Your task to perform on an android device: Open the Play Movies app and select the watchlist tab. Image 0: 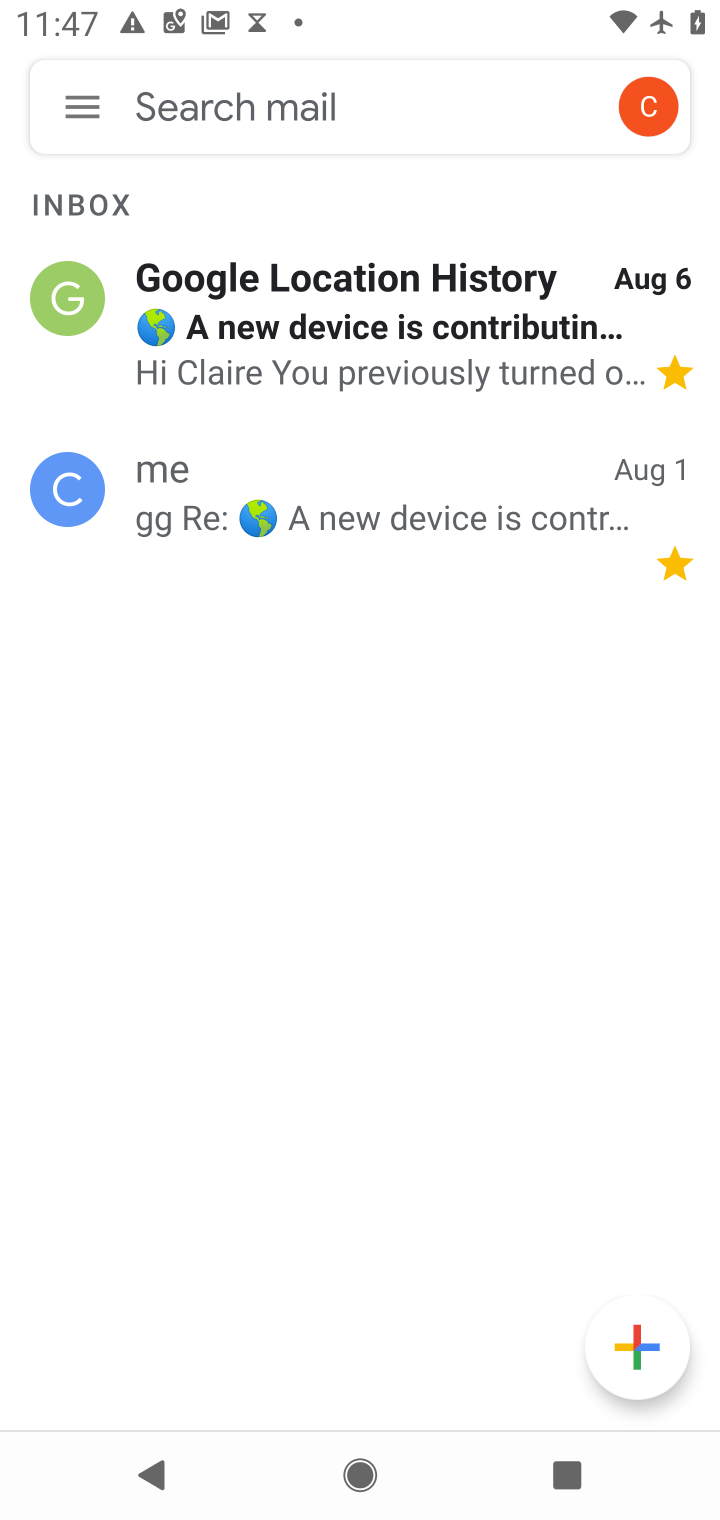
Step 0: press home button
Your task to perform on an android device: Open the Play Movies app and select the watchlist tab. Image 1: 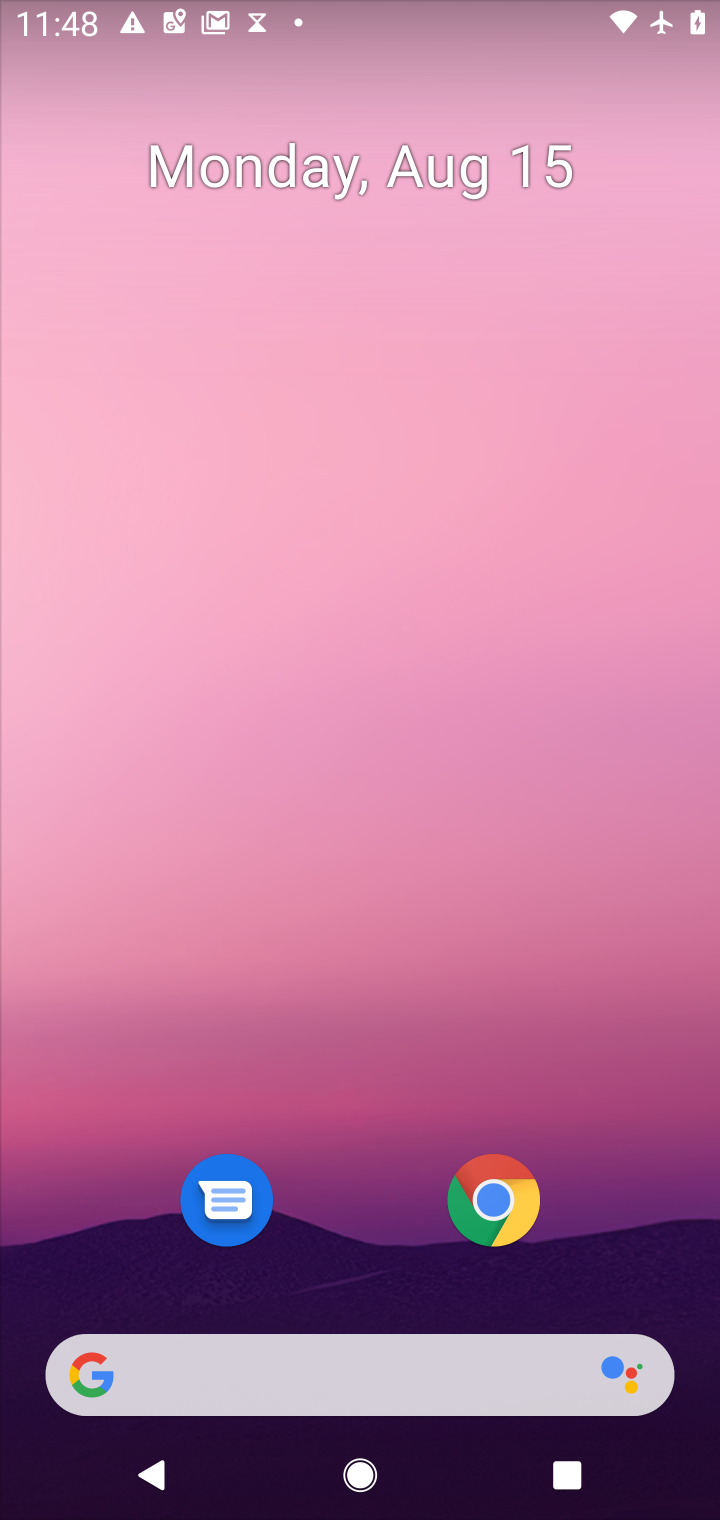
Step 1: drag from (363, 974) to (267, 592)
Your task to perform on an android device: Open the Play Movies app and select the watchlist tab. Image 2: 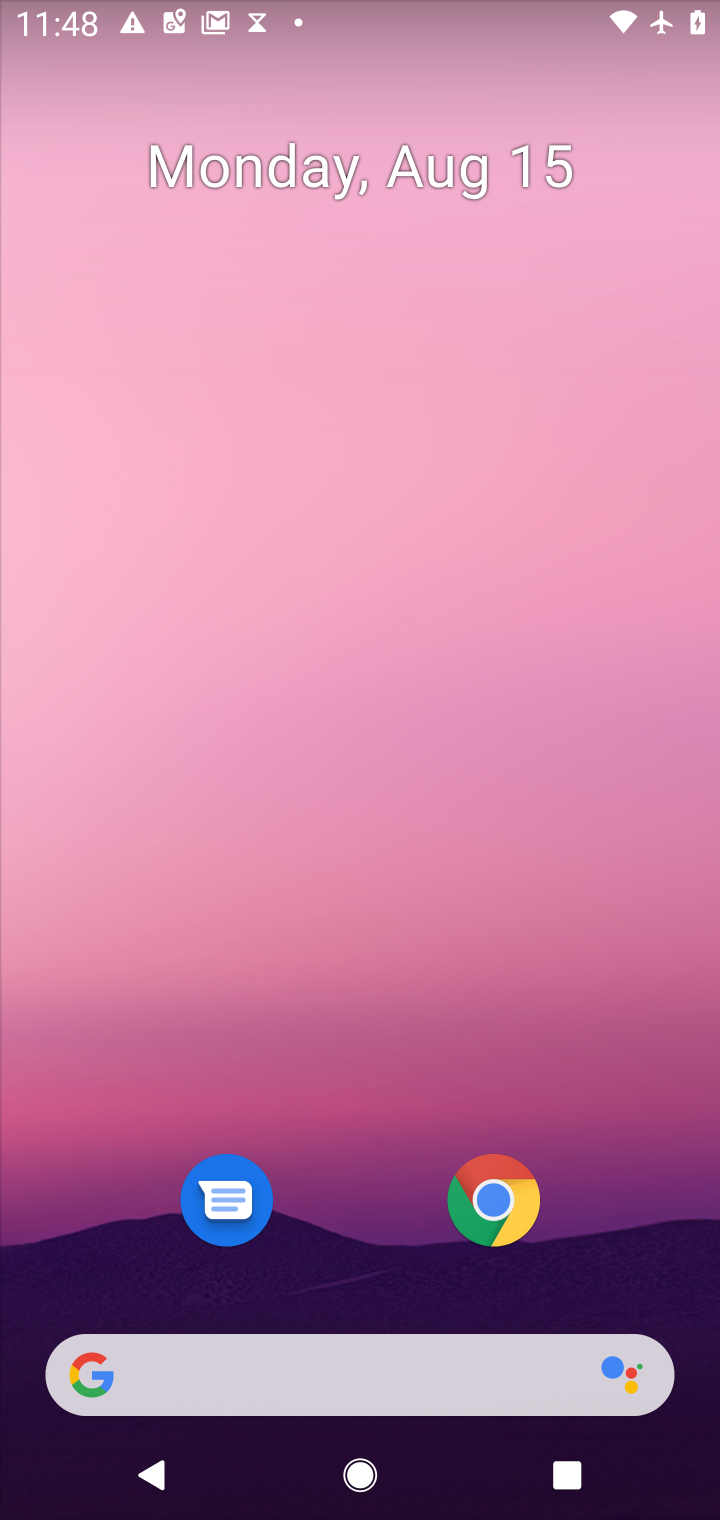
Step 2: drag from (305, 1104) to (305, 372)
Your task to perform on an android device: Open the Play Movies app and select the watchlist tab. Image 3: 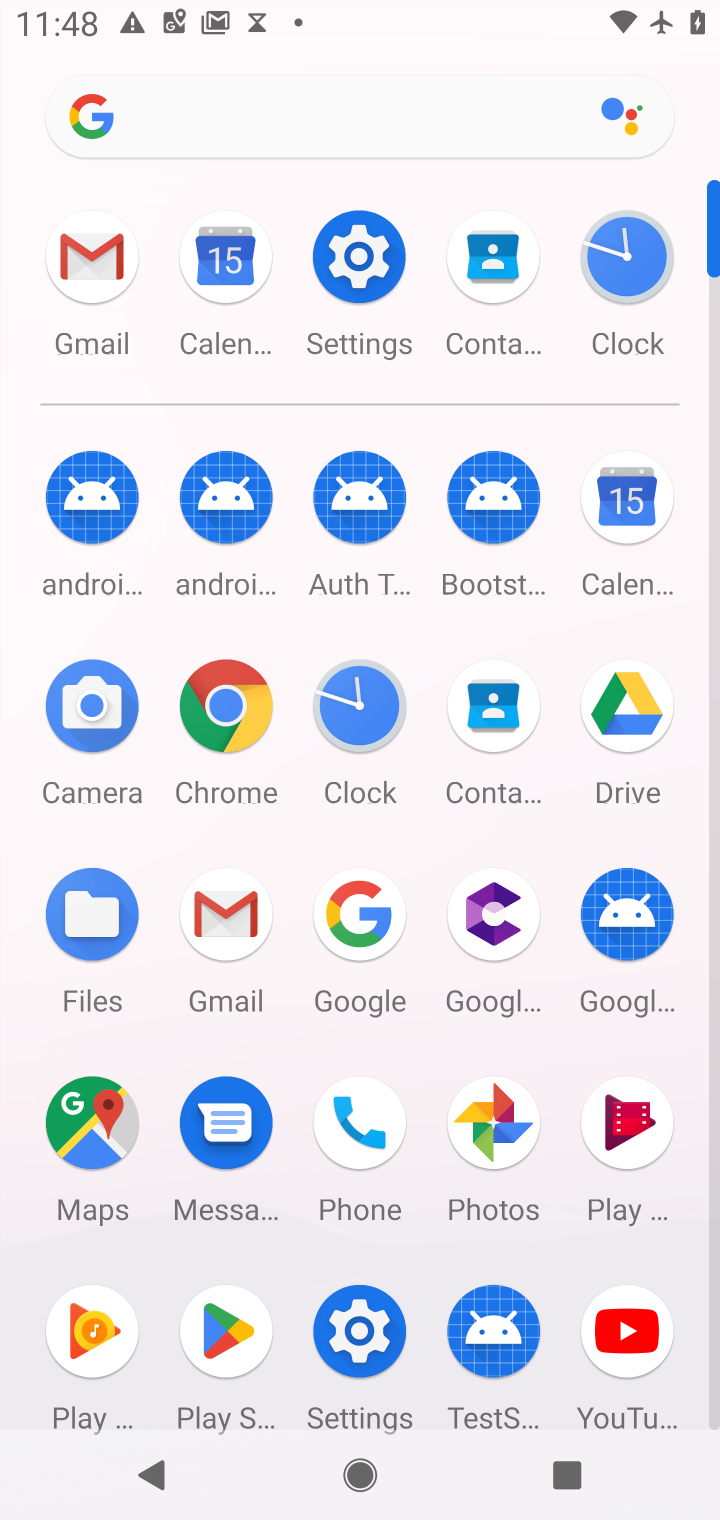
Step 3: click (612, 1148)
Your task to perform on an android device: Open the Play Movies app and select the watchlist tab. Image 4: 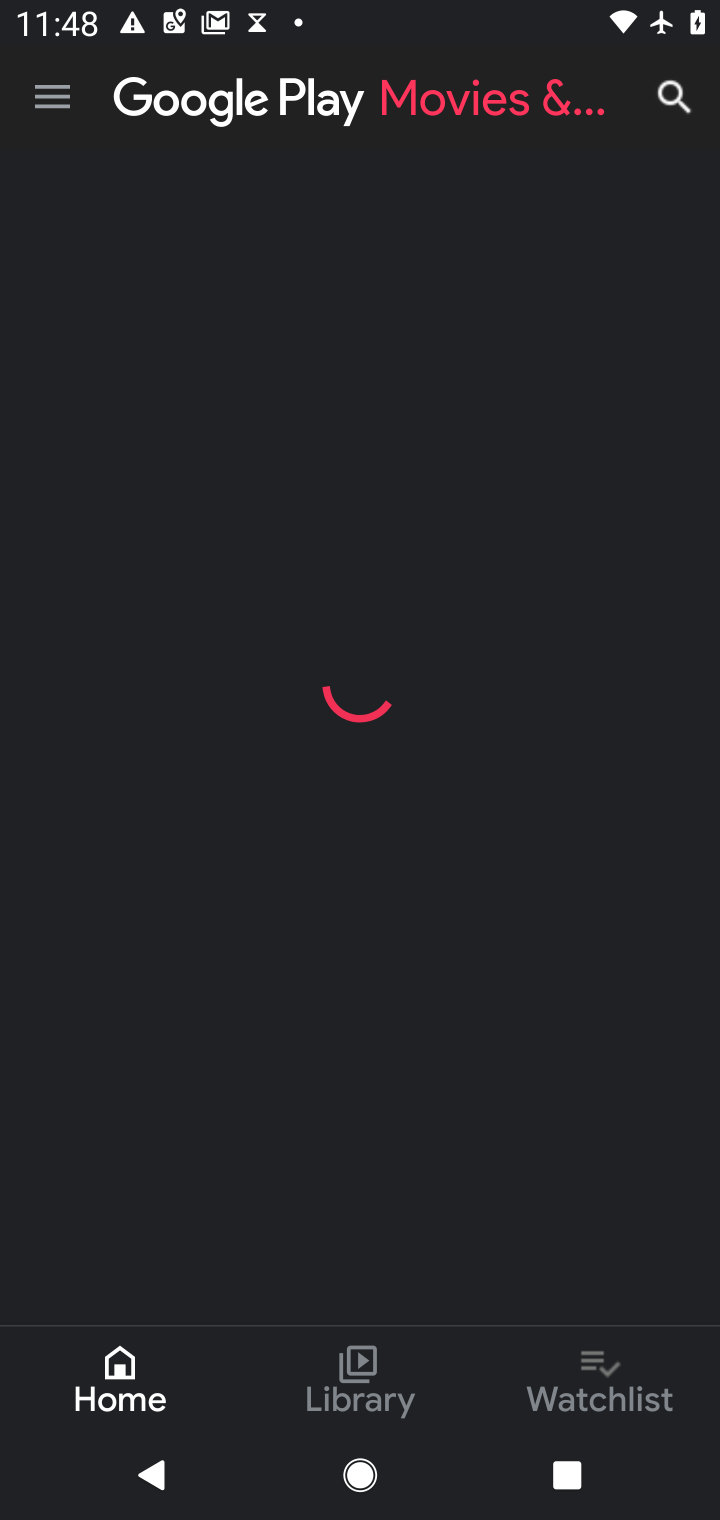
Step 4: click (574, 1391)
Your task to perform on an android device: Open the Play Movies app and select the watchlist tab. Image 5: 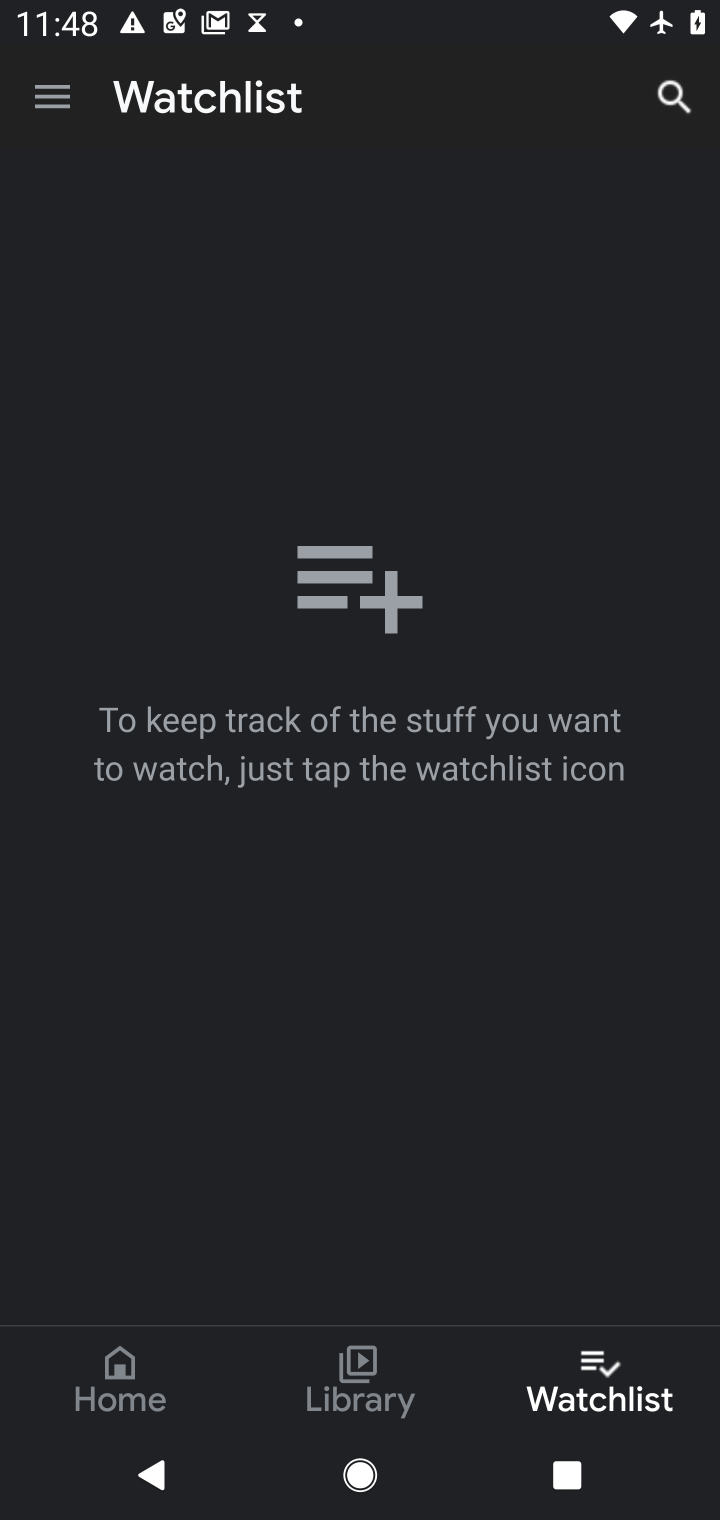
Step 5: task complete